Your task to perform on an android device: empty trash in google photos Image 0: 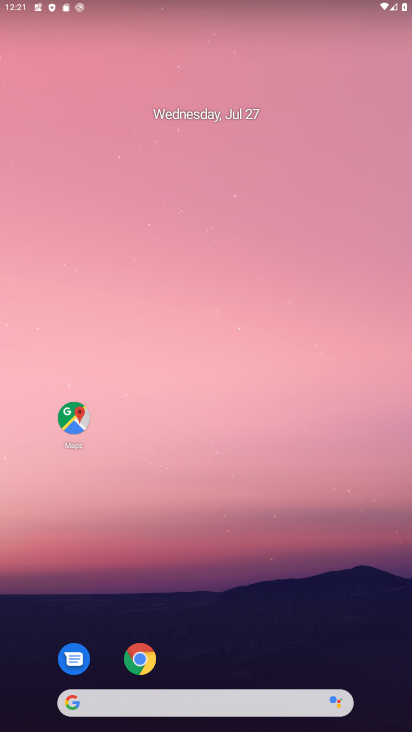
Step 0: press home button
Your task to perform on an android device: empty trash in google photos Image 1: 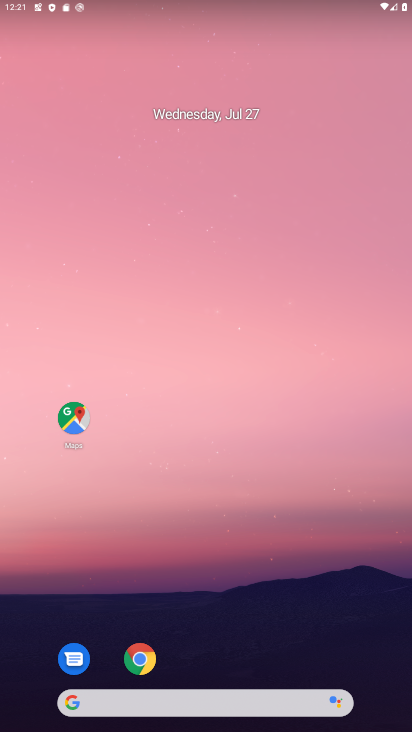
Step 1: drag from (212, 667) to (243, 177)
Your task to perform on an android device: empty trash in google photos Image 2: 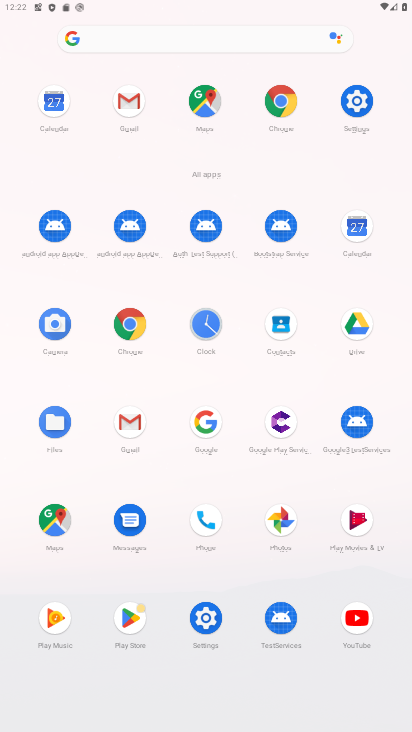
Step 2: click (280, 515)
Your task to perform on an android device: empty trash in google photos Image 3: 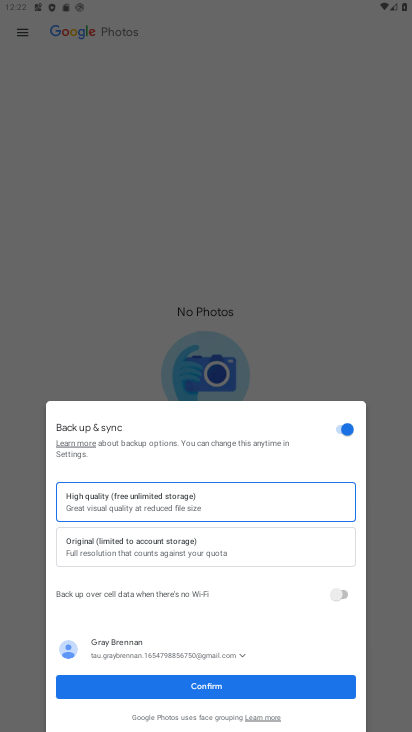
Step 3: click (191, 688)
Your task to perform on an android device: empty trash in google photos Image 4: 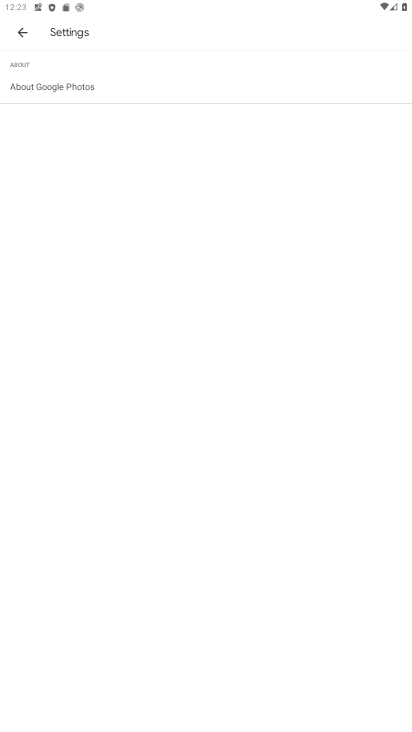
Step 4: click (13, 28)
Your task to perform on an android device: empty trash in google photos Image 5: 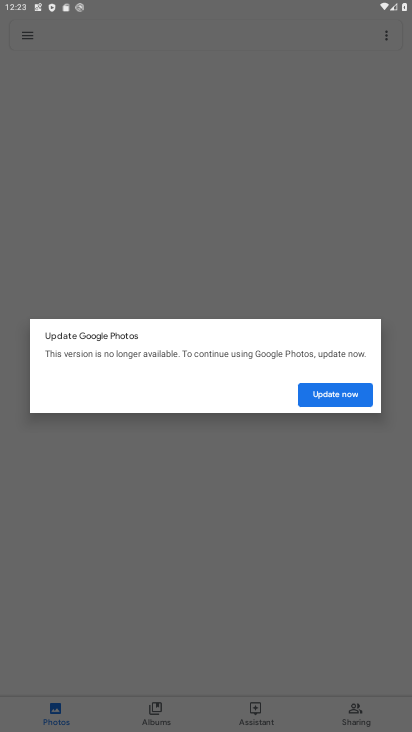
Step 5: click (21, 33)
Your task to perform on an android device: empty trash in google photos Image 6: 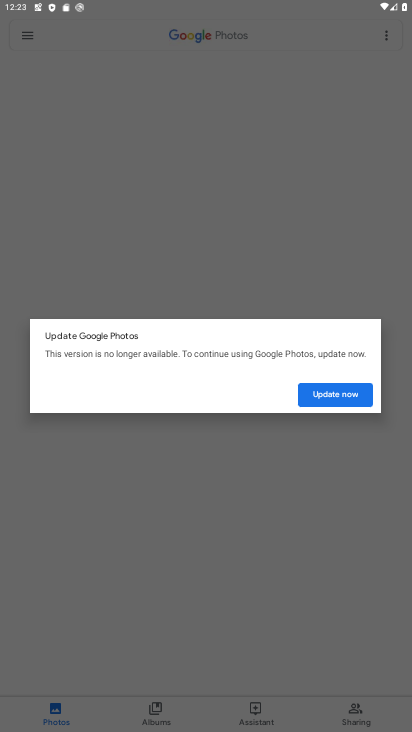
Step 6: click (345, 398)
Your task to perform on an android device: empty trash in google photos Image 7: 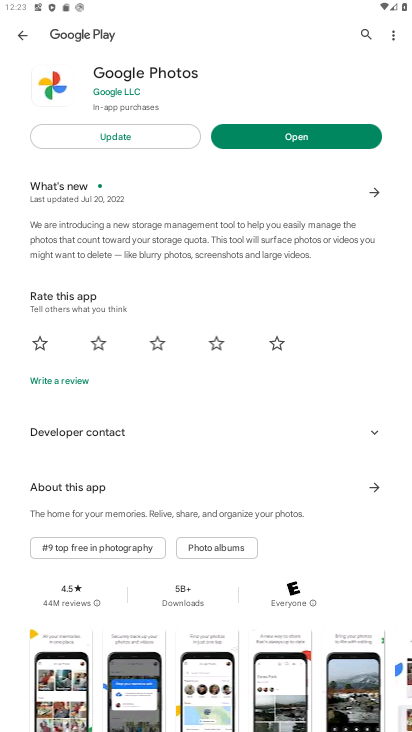
Step 7: click (95, 127)
Your task to perform on an android device: empty trash in google photos Image 8: 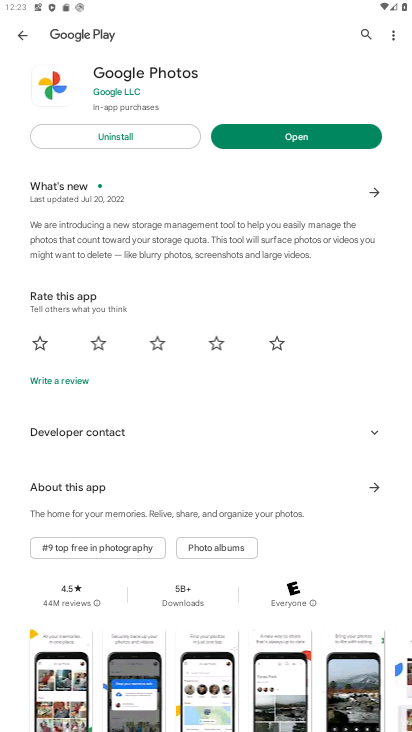
Step 8: click (312, 137)
Your task to perform on an android device: empty trash in google photos Image 9: 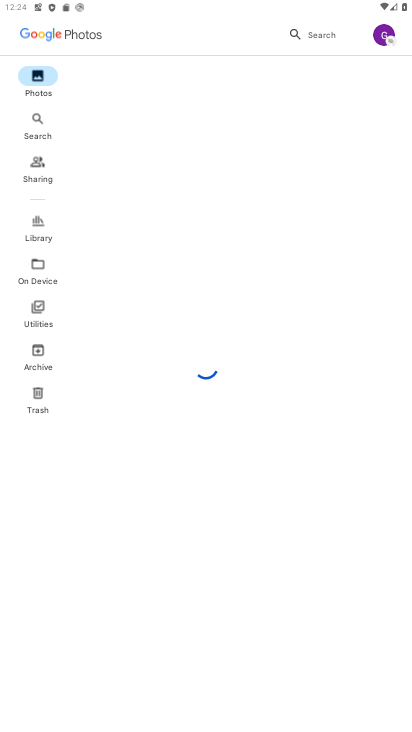
Step 9: click (38, 395)
Your task to perform on an android device: empty trash in google photos Image 10: 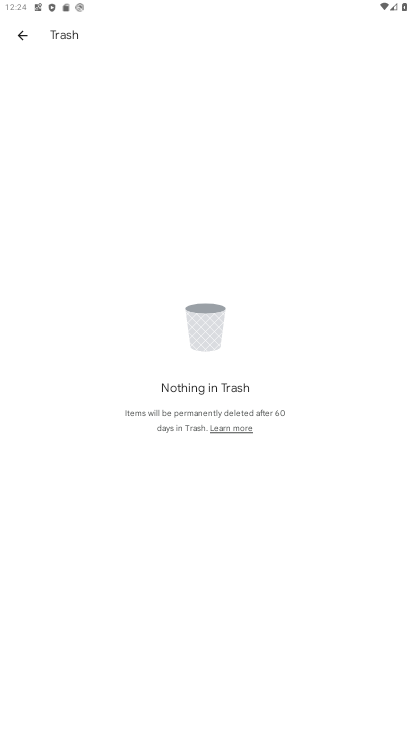
Step 10: task complete